Your task to perform on an android device: turn off translation in the chrome app Image 0: 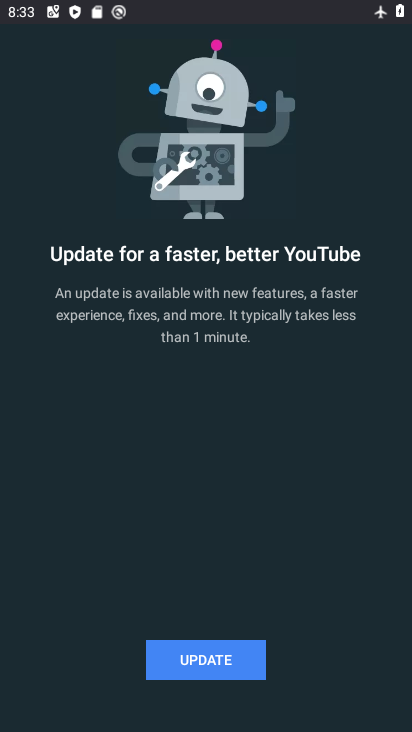
Step 0: press back button
Your task to perform on an android device: turn off translation in the chrome app Image 1: 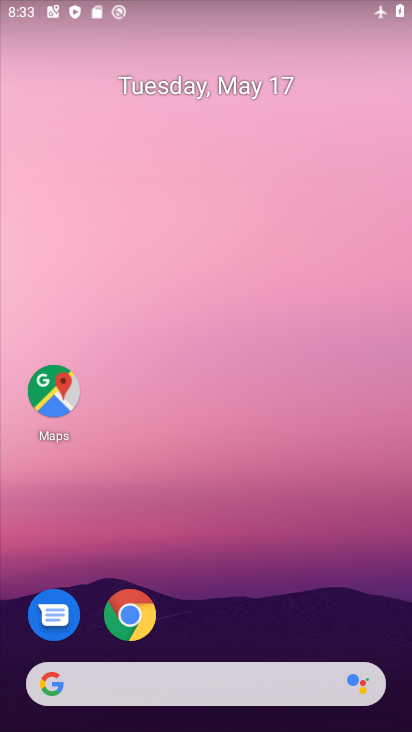
Step 1: drag from (208, 625) to (263, 264)
Your task to perform on an android device: turn off translation in the chrome app Image 2: 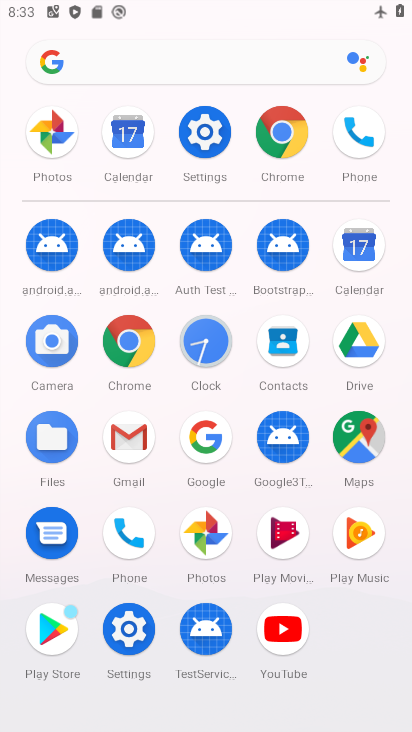
Step 2: click (268, 223)
Your task to perform on an android device: turn off translation in the chrome app Image 3: 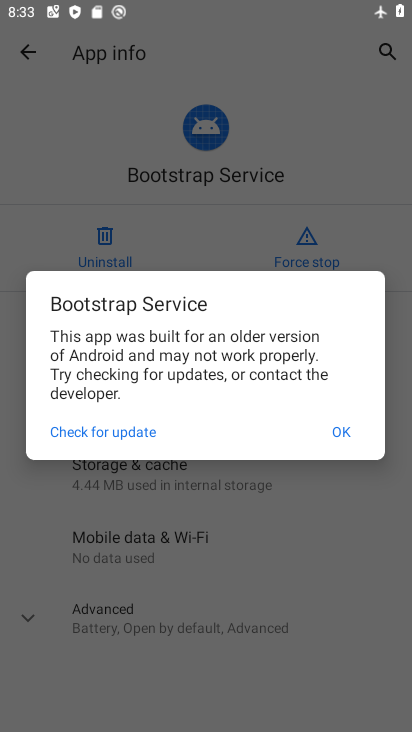
Step 3: click (338, 443)
Your task to perform on an android device: turn off translation in the chrome app Image 4: 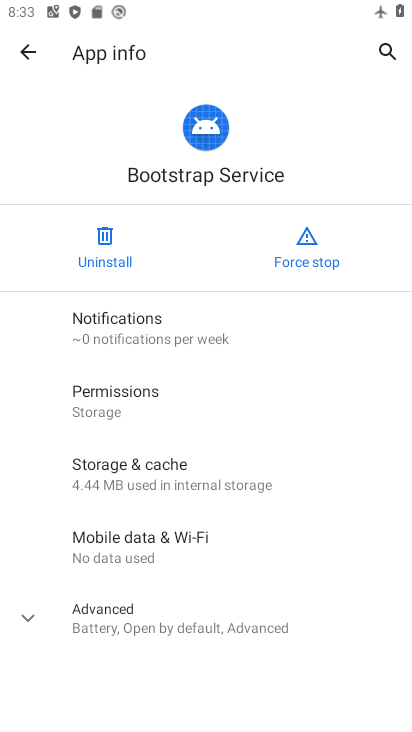
Step 4: click (30, 58)
Your task to perform on an android device: turn off translation in the chrome app Image 5: 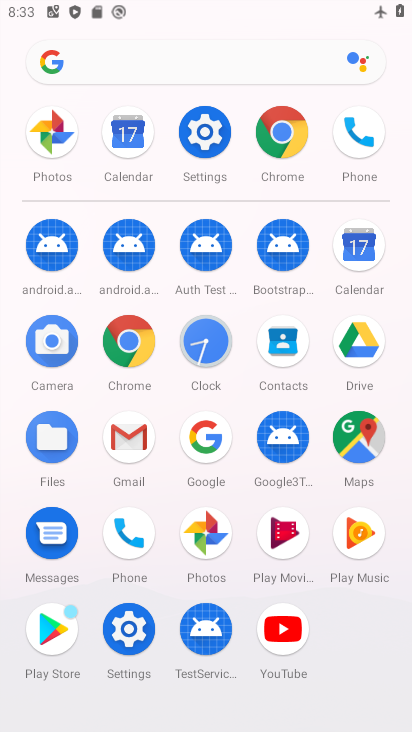
Step 5: click (278, 126)
Your task to perform on an android device: turn off translation in the chrome app Image 6: 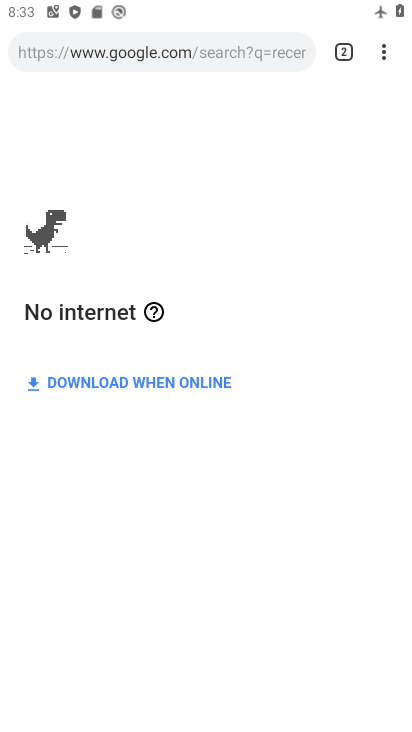
Step 6: click (379, 56)
Your task to perform on an android device: turn off translation in the chrome app Image 7: 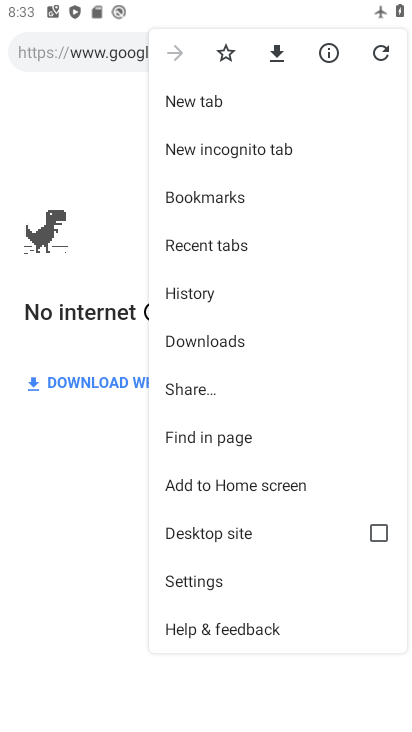
Step 7: drag from (216, 547) to (278, 241)
Your task to perform on an android device: turn off translation in the chrome app Image 8: 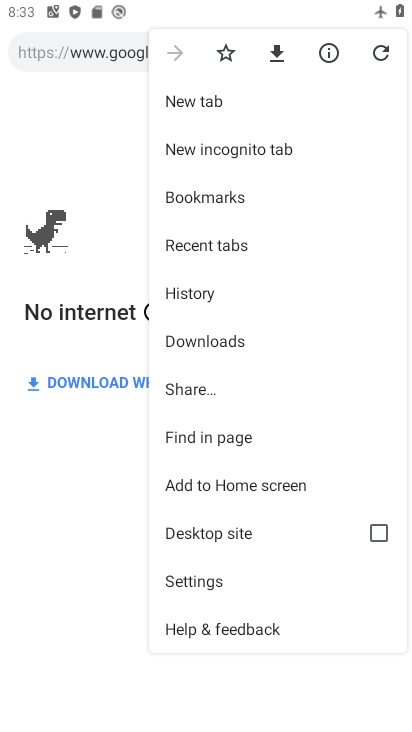
Step 8: click (219, 579)
Your task to perform on an android device: turn off translation in the chrome app Image 9: 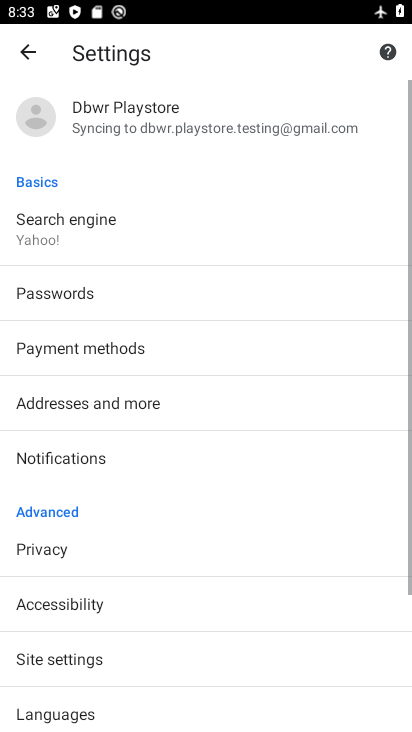
Step 9: drag from (155, 617) to (244, 252)
Your task to perform on an android device: turn off translation in the chrome app Image 10: 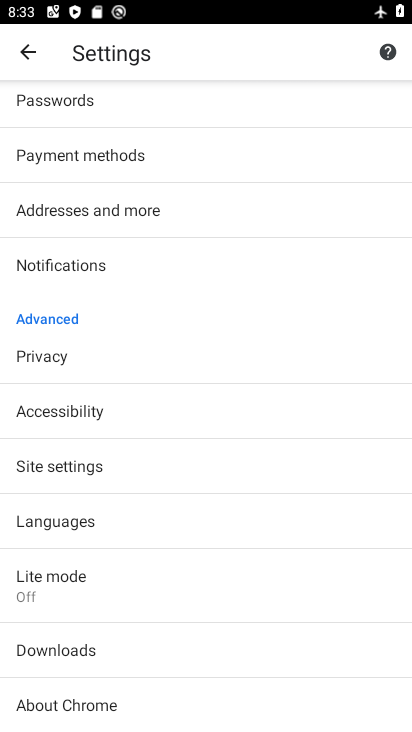
Step 10: drag from (94, 568) to (128, 508)
Your task to perform on an android device: turn off translation in the chrome app Image 11: 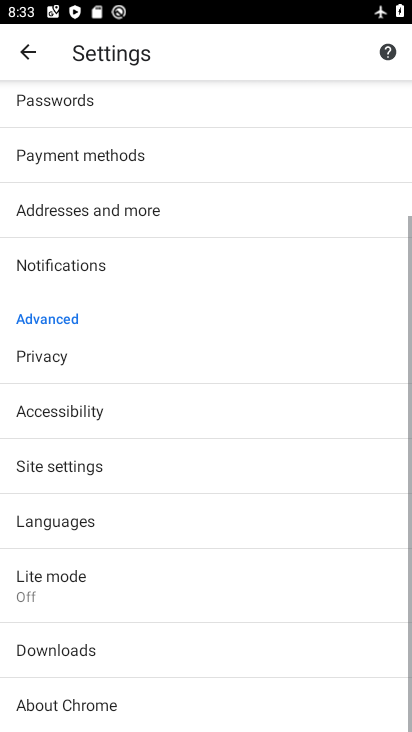
Step 11: click (128, 508)
Your task to perform on an android device: turn off translation in the chrome app Image 12: 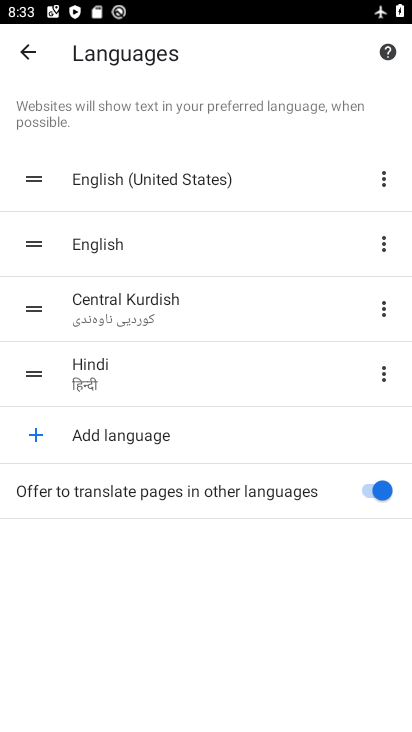
Step 12: click (364, 494)
Your task to perform on an android device: turn off translation in the chrome app Image 13: 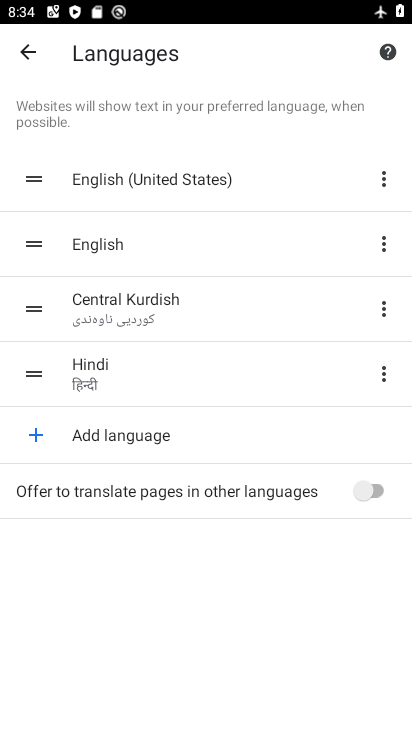
Step 13: task complete